Your task to perform on an android device: Open display settings Image 0: 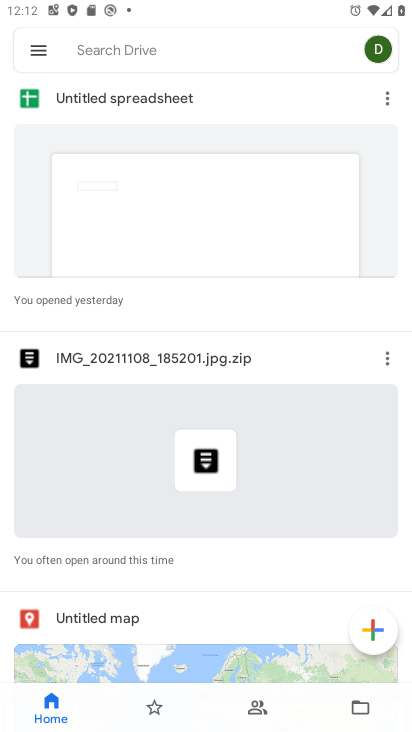
Step 0: press home button
Your task to perform on an android device: Open display settings Image 1: 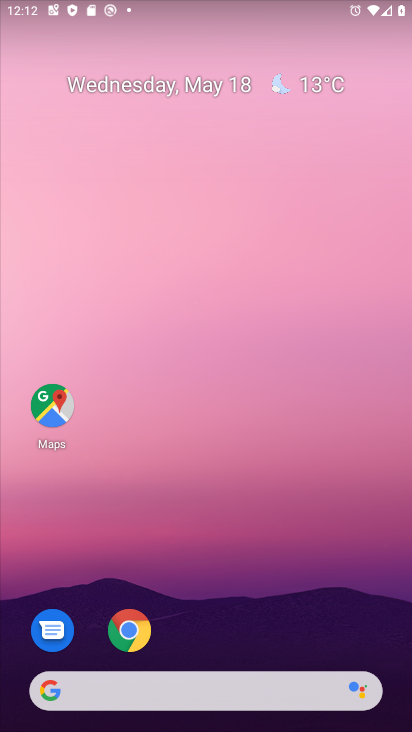
Step 1: drag from (211, 721) to (190, 207)
Your task to perform on an android device: Open display settings Image 2: 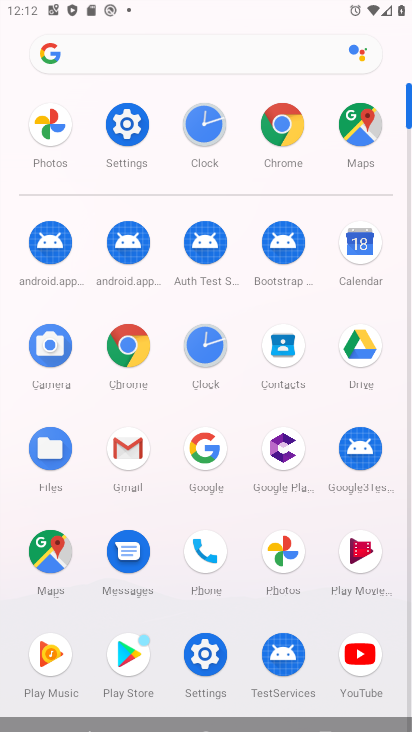
Step 2: click (130, 124)
Your task to perform on an android device: Open display settings Image 3: 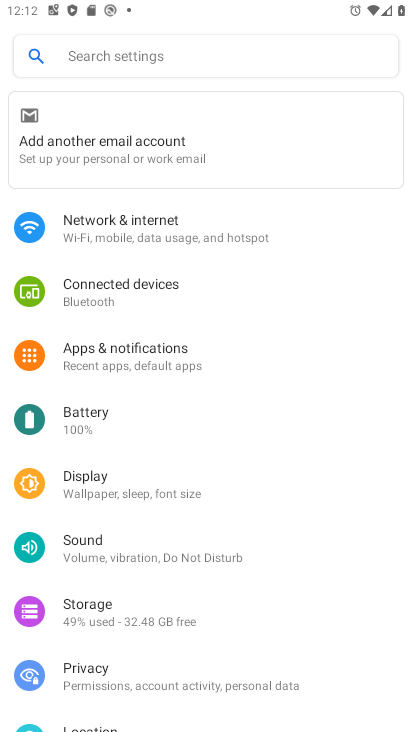
Step 3: click (66, 485)
Your task to perform on an android device: Open display settings Image 4: 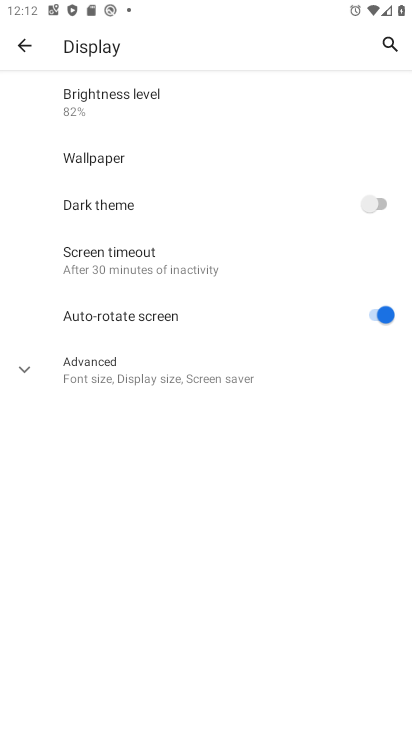
Step 4: task complete